Your task to perform on an android device: open device folders in google photos Image 0: 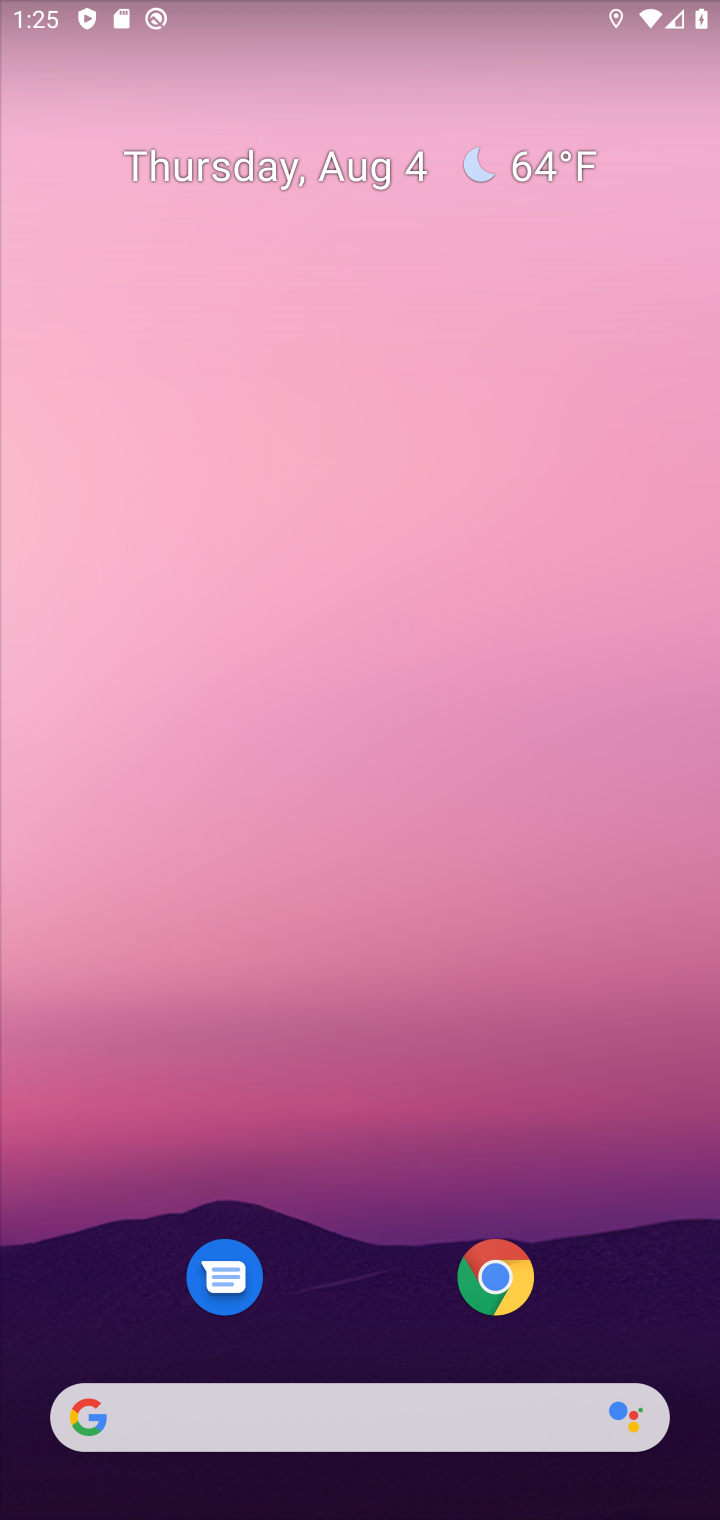
Step 0: press home button
Your task to perform on an android device: open device folders in google photos Image 1: 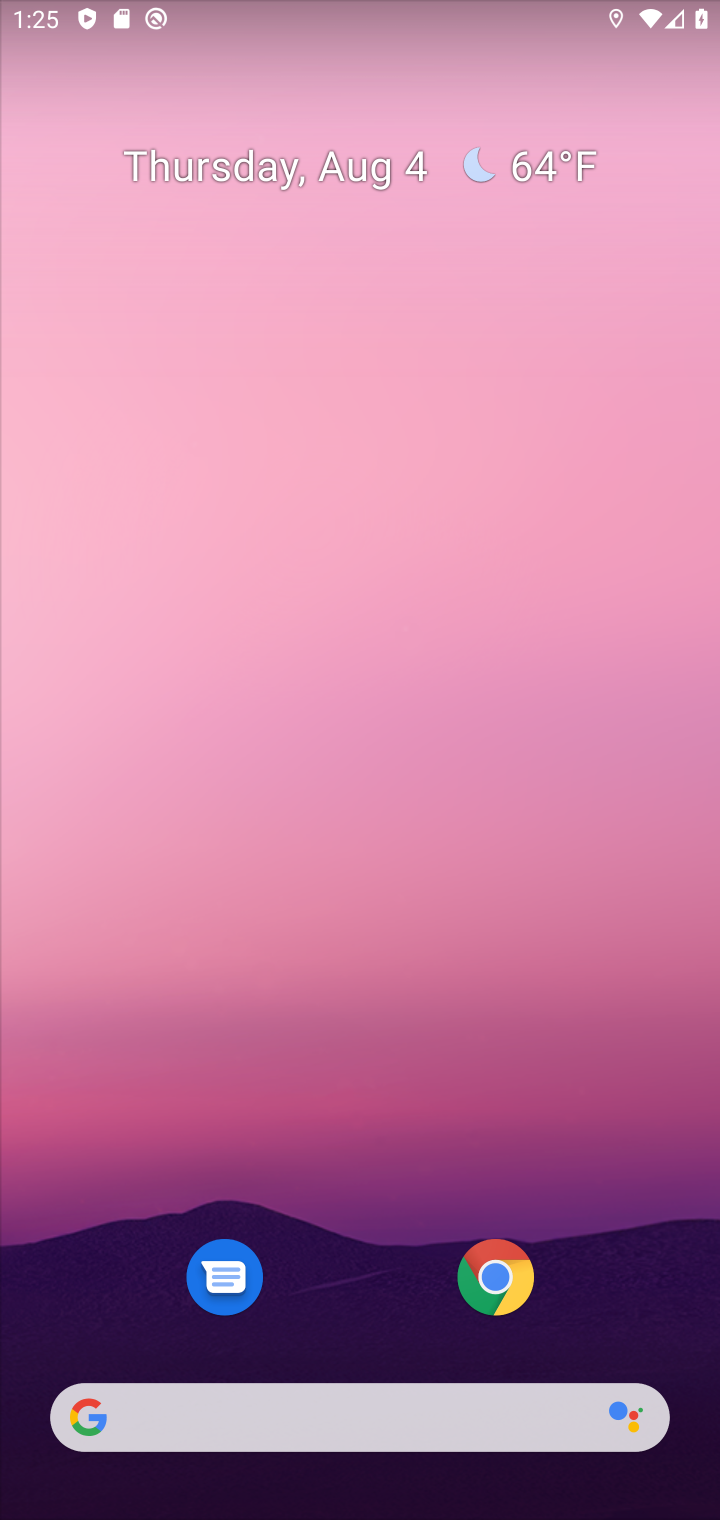
Step 1: drag from (301, 932) to (352, 590)
Your task to perform on an android device: open device folders in google photos Image 2: 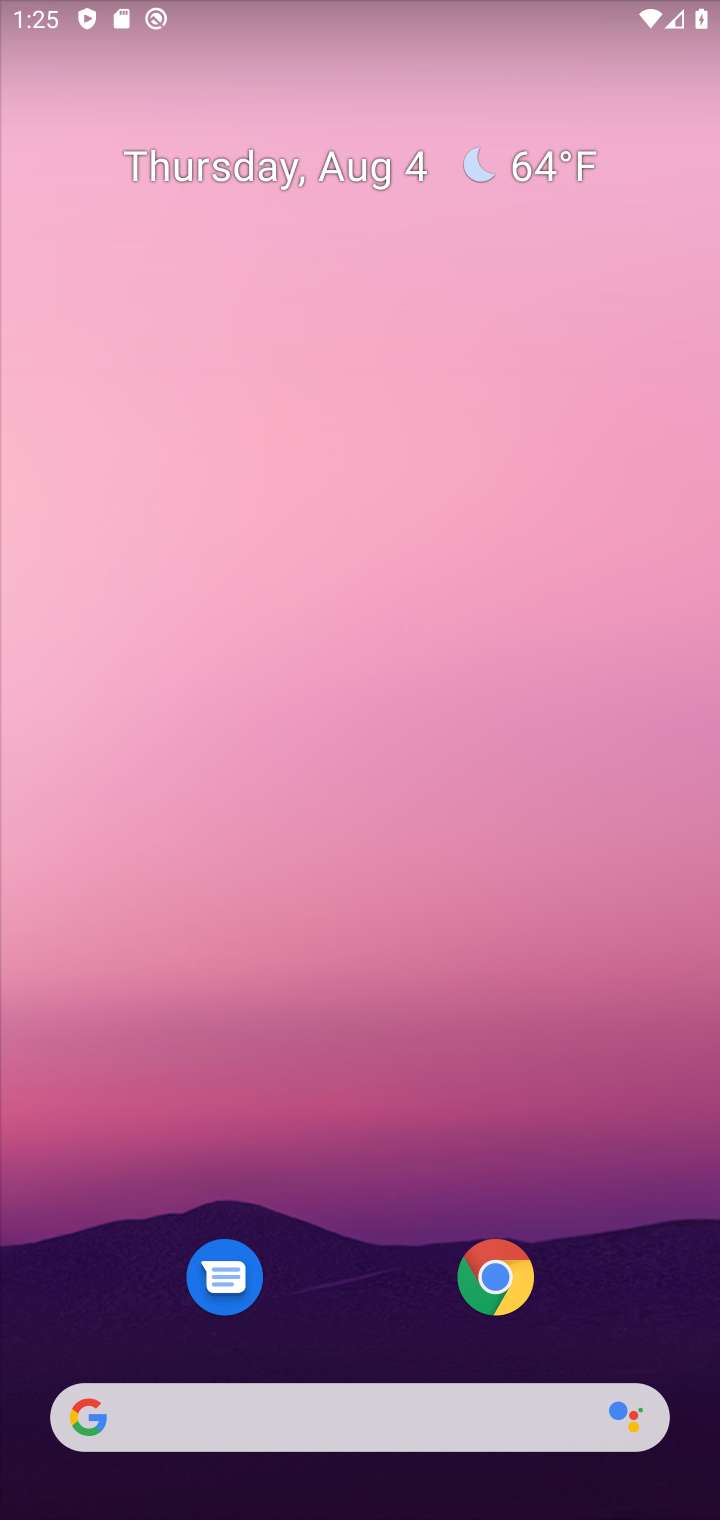
Step 2: drag from (328, 914) to (411, 367)
Your task to perform on an android device: open device folders in google photos Image 3: 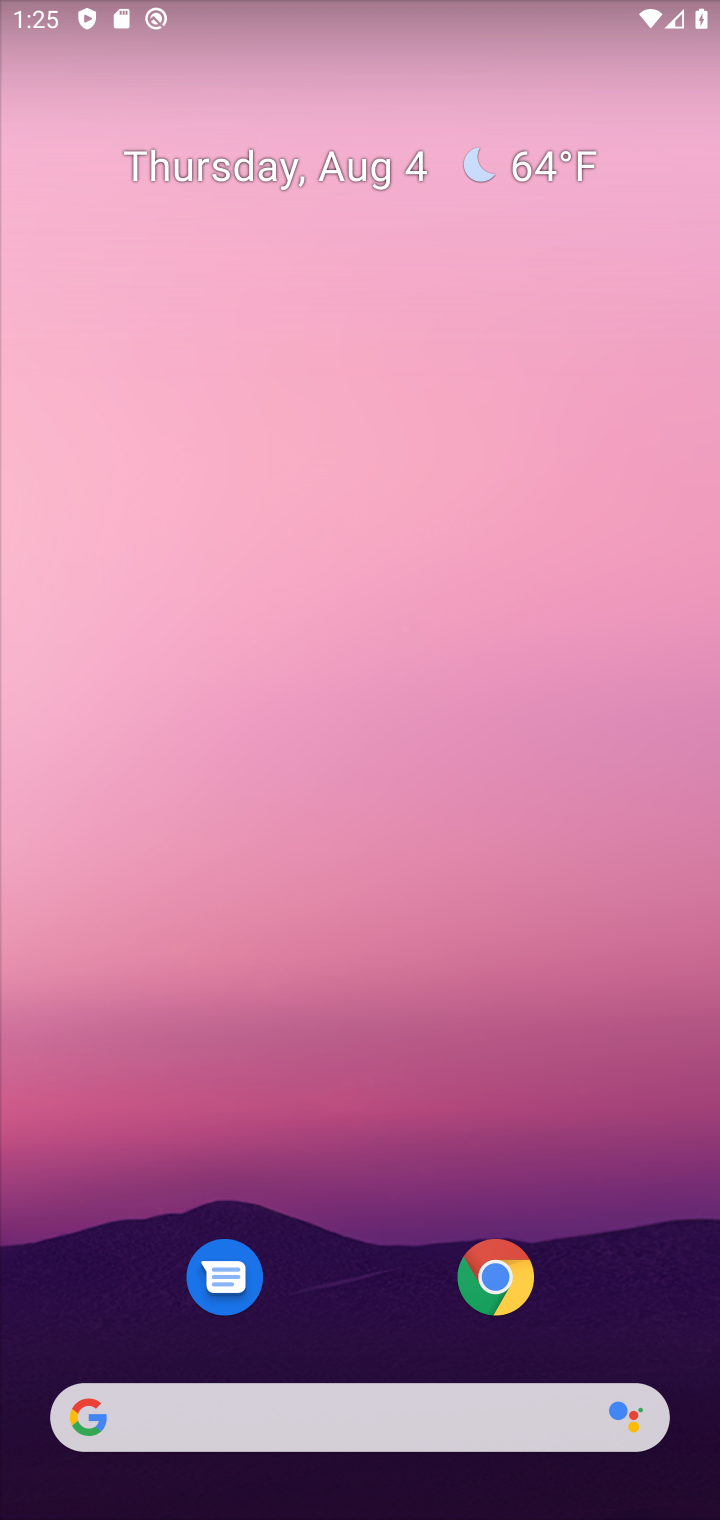
Step 3: drag from (306, 1378) to (422, 337)
Your task to perform on an android device: open device folders in google photos Image 4: 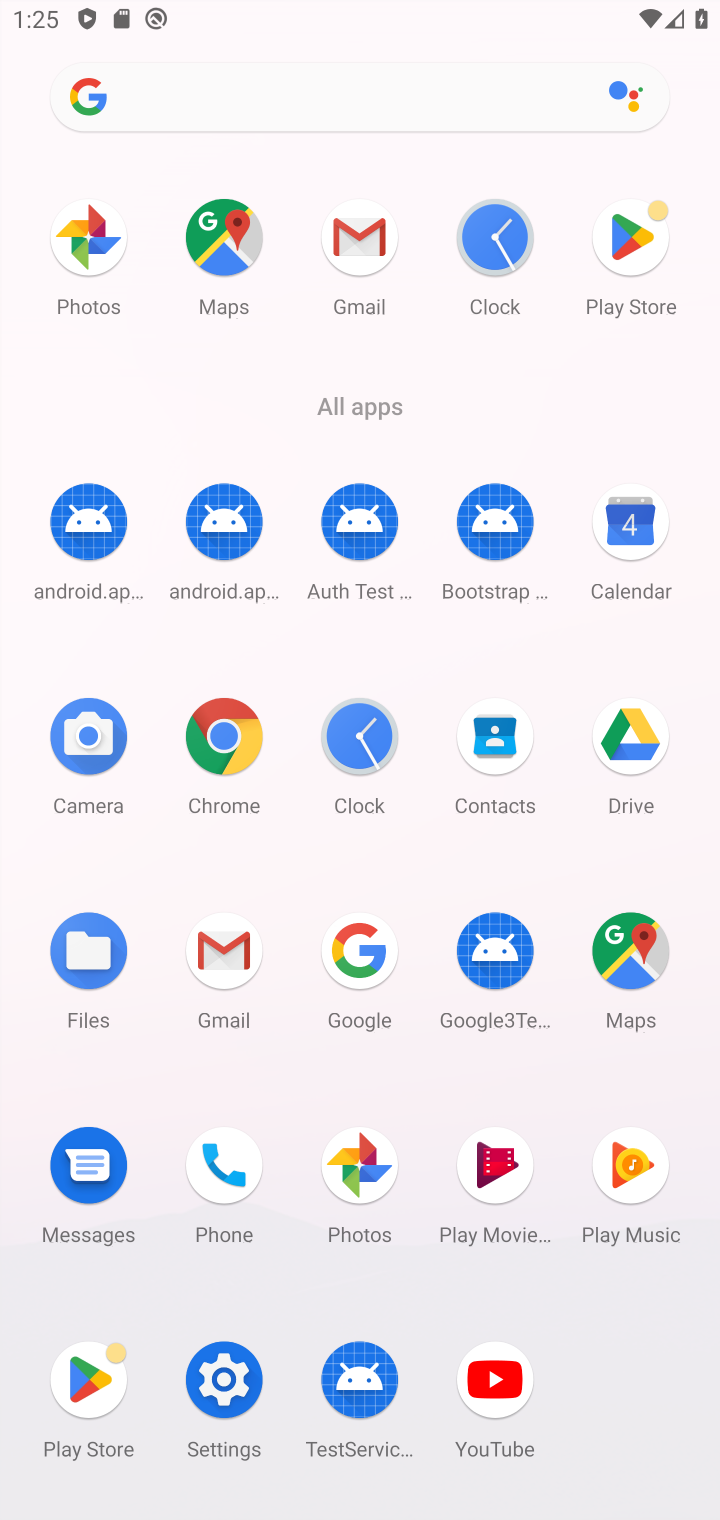
Step 4: click (358, 1157)
Your task to perform on an android device: open device folders in google photos Image 5: 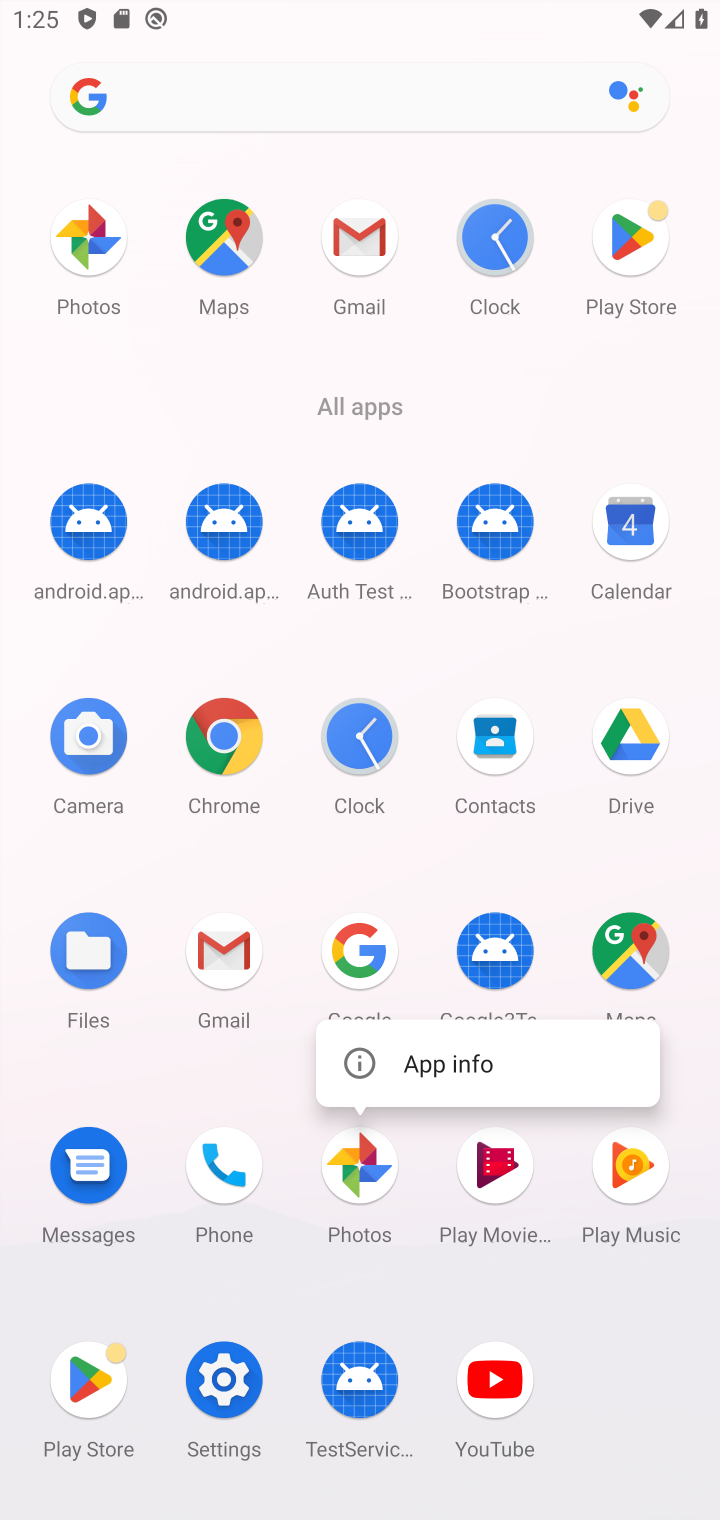
Step 5: click (358, 1179)
Your task to perform on an android device: open device folders in google photos Image 6: 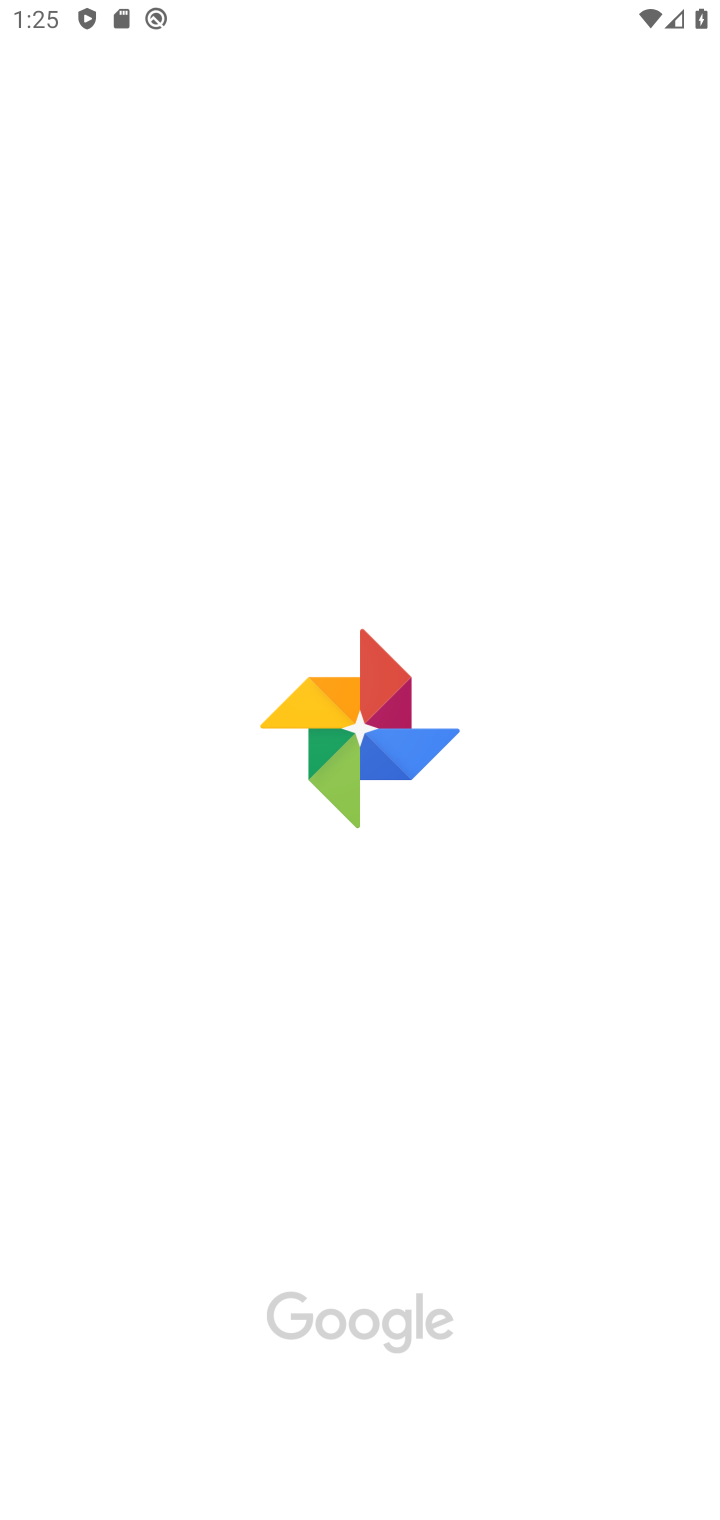
Step 6: click (357, 1156)
Your task to perform on an android device: open device folders in google photos Image 7: 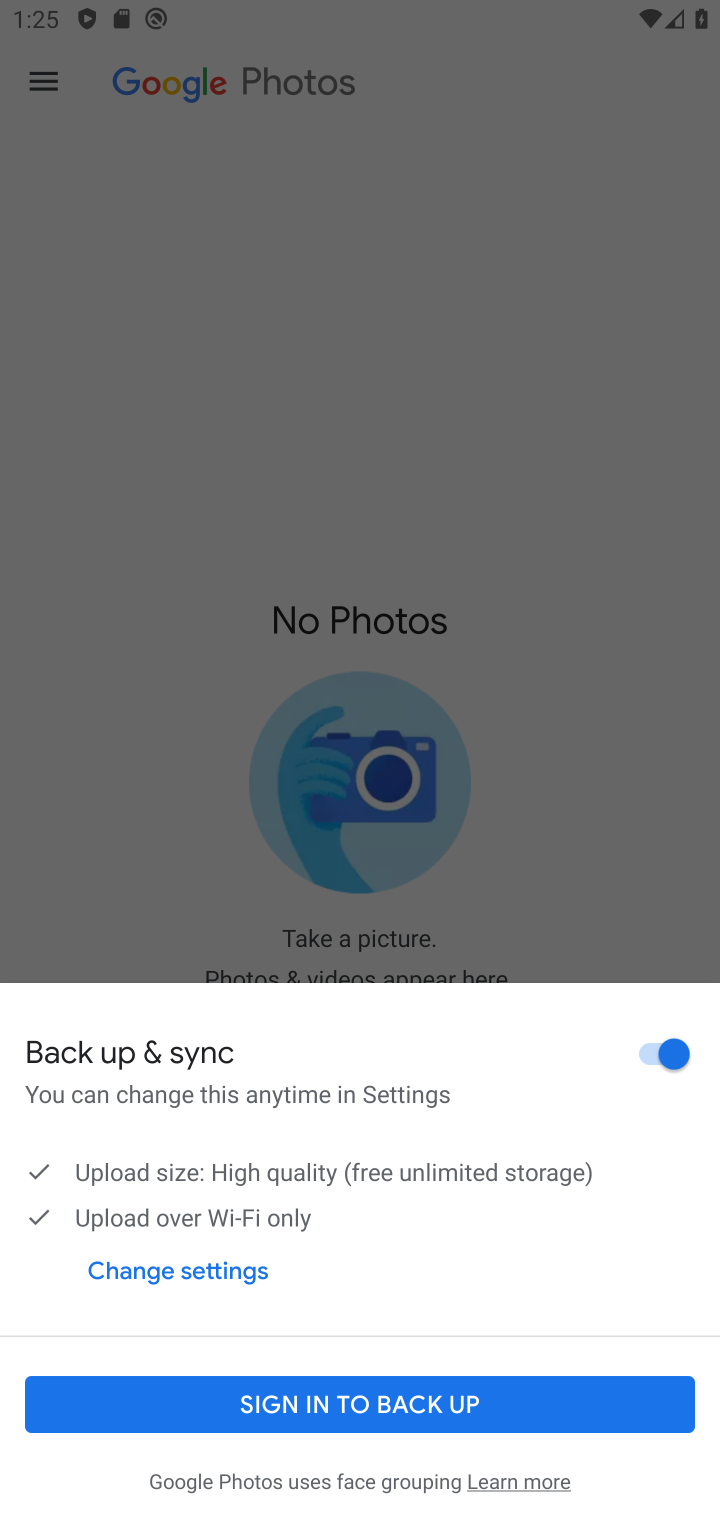
Step 7: task complete